Your task to perform on an android device: Show me recent news Image 0: 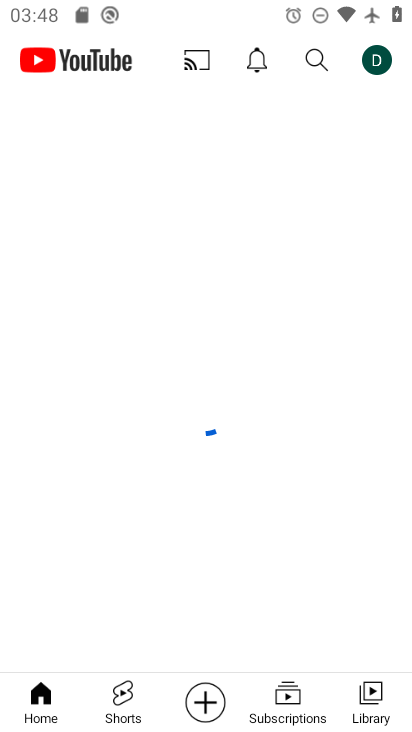
Step 0: click (78, 459)
Your task to perform on an android device: Show me recent news Image 1: 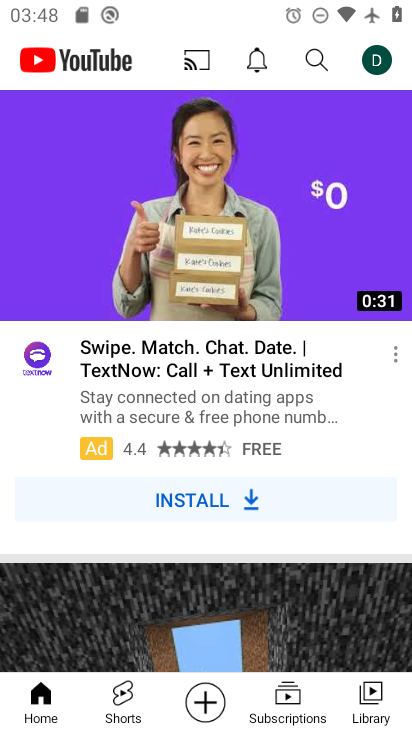
Step 1: press home button
Your task to perform on an android device: Show me recent news Image 2: 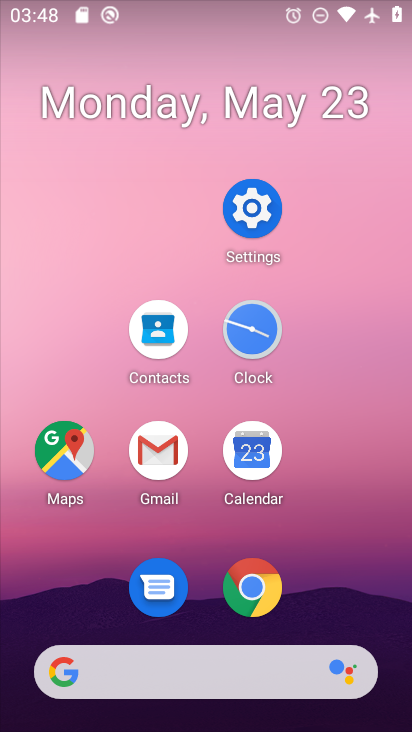
Step 2: click (215, 671)
Your task to perform on an android device: Show me recent news Image 3: 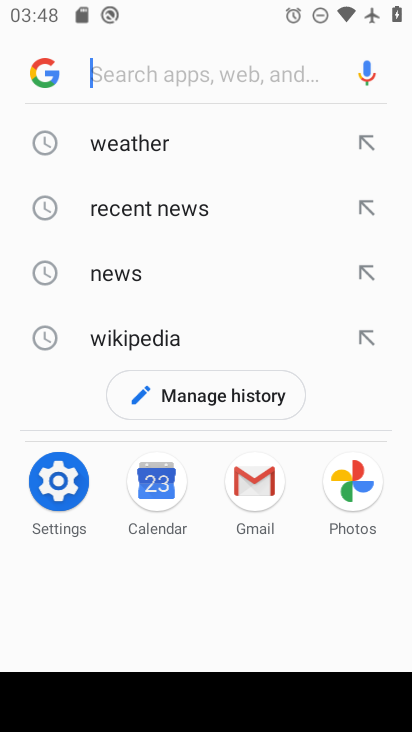
Step 3: click (195, 198)
Your task to perform on an android device: Show me recent news Image 4: 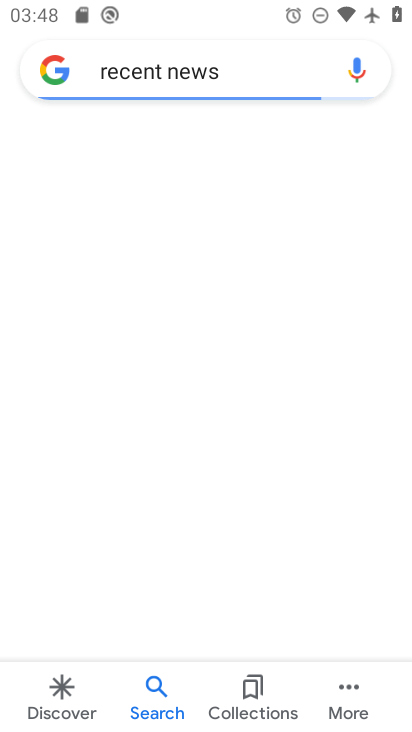
Step 4: task complete